Your task to perform on an android device: change text size in settings app Image 0: 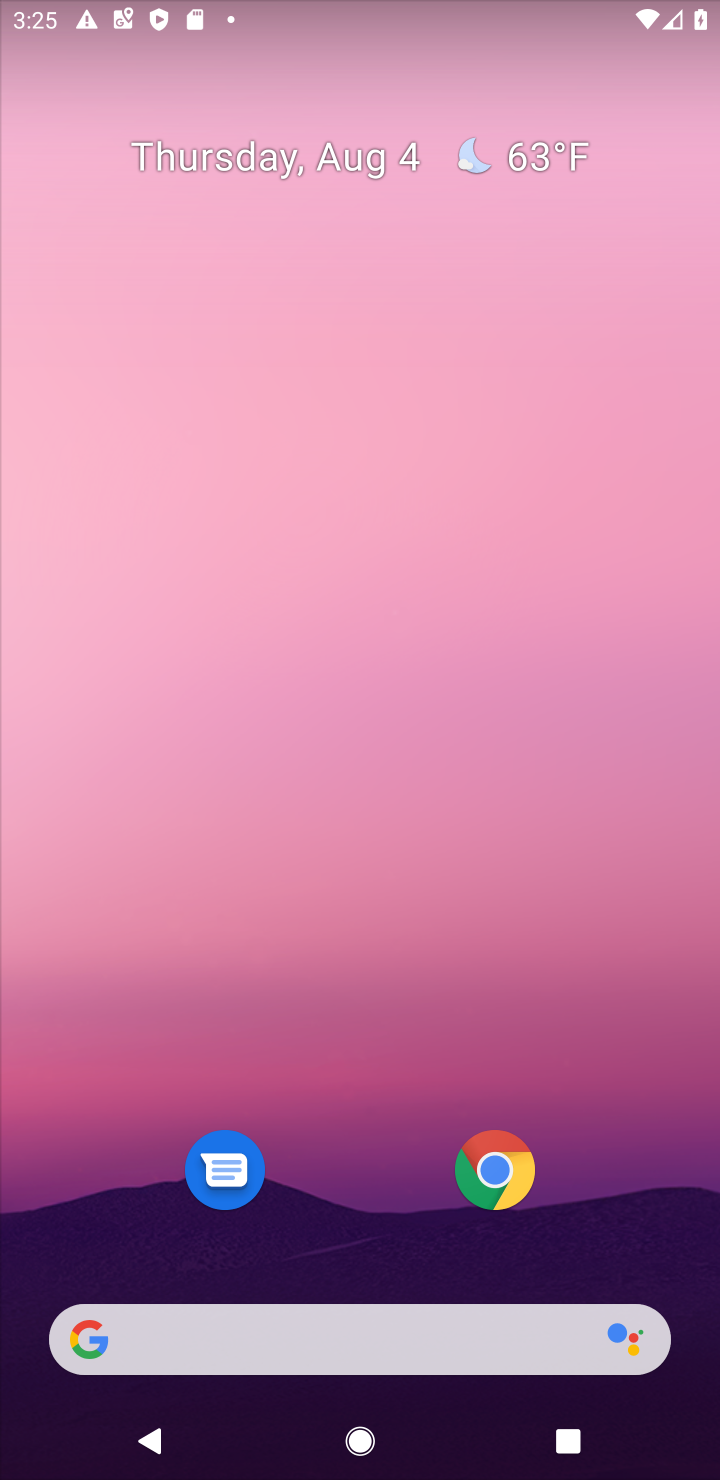
Step 0: drag from (657, 1205) to (544, 122)
Your task to perform on an android device: change text size in settings app Image 1: 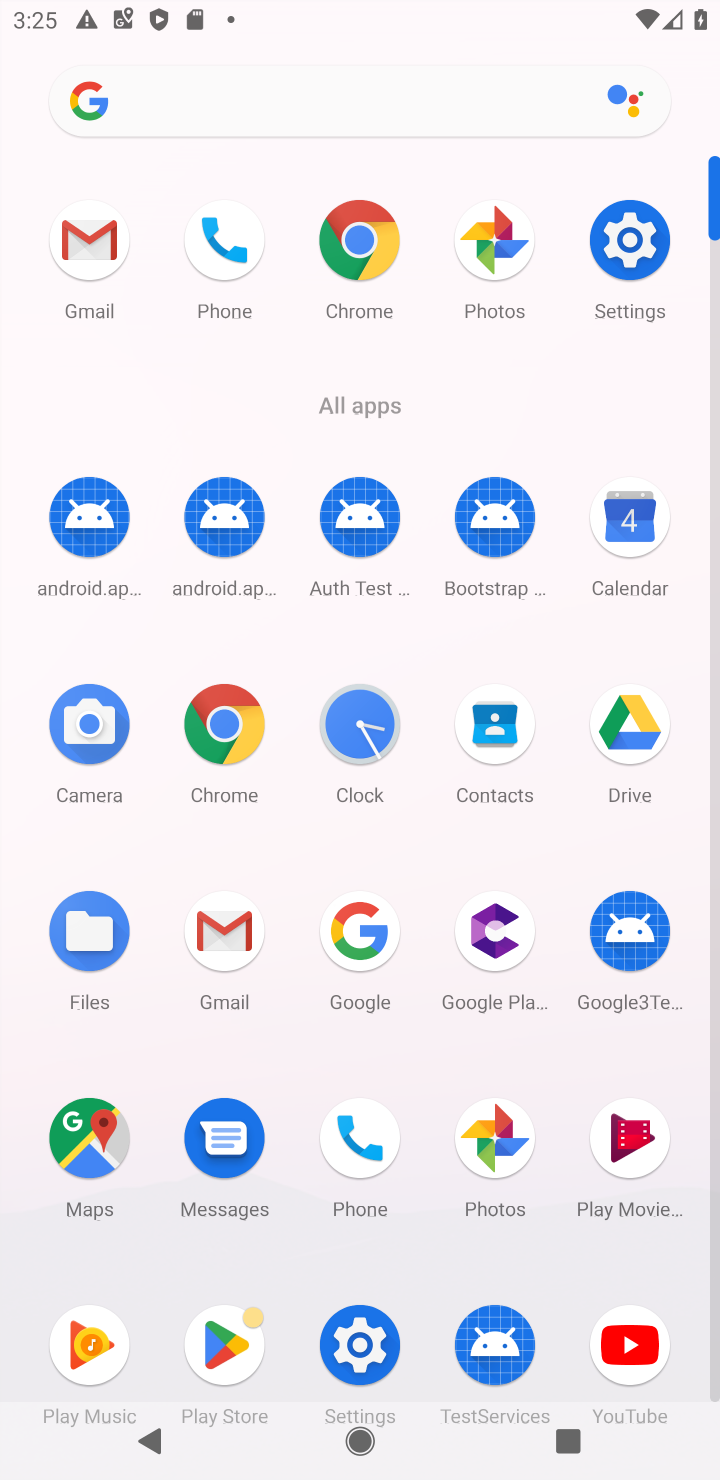
Step 1: click (358, 1350)
Your task to perform on an android device: change text size in settings app Image 2: 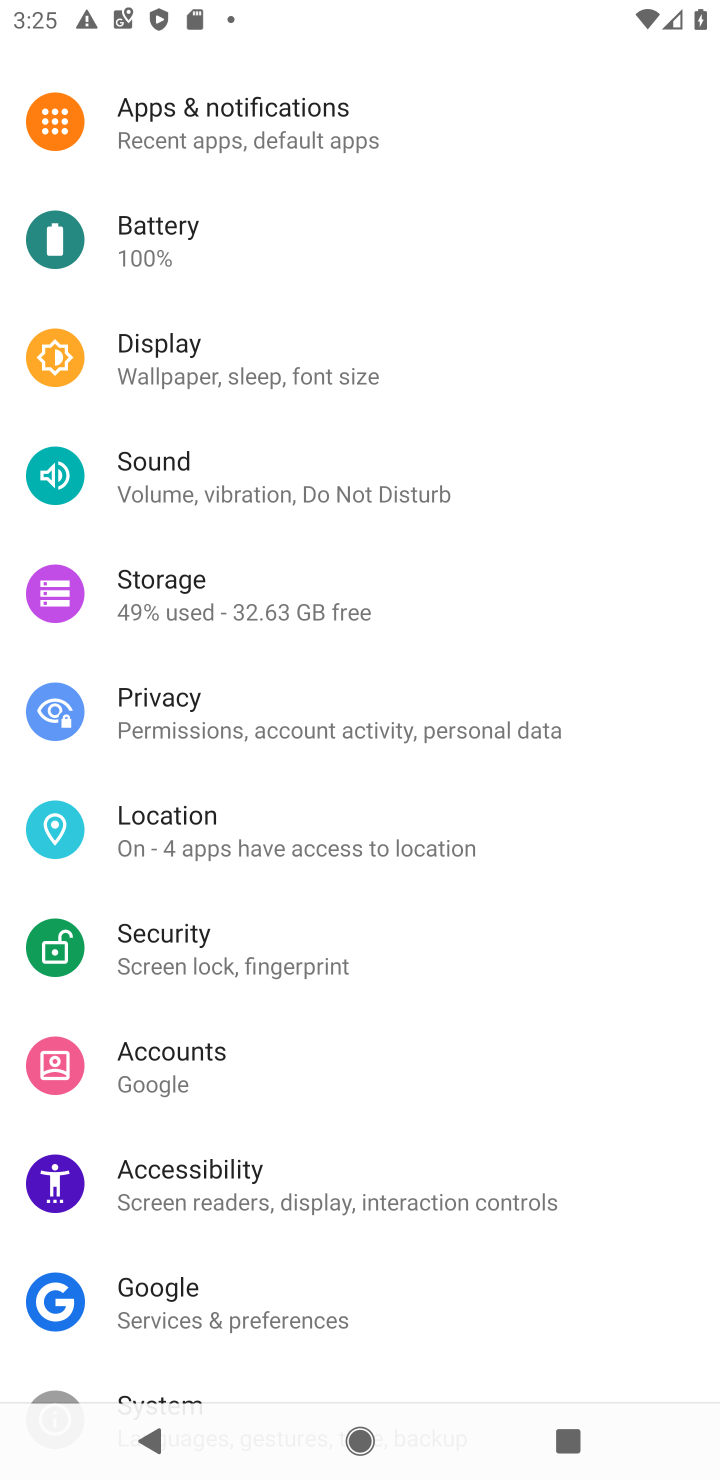
Step 2: click (168, 351)
Your task to perform on an android device: change text size in settings app Image 3: 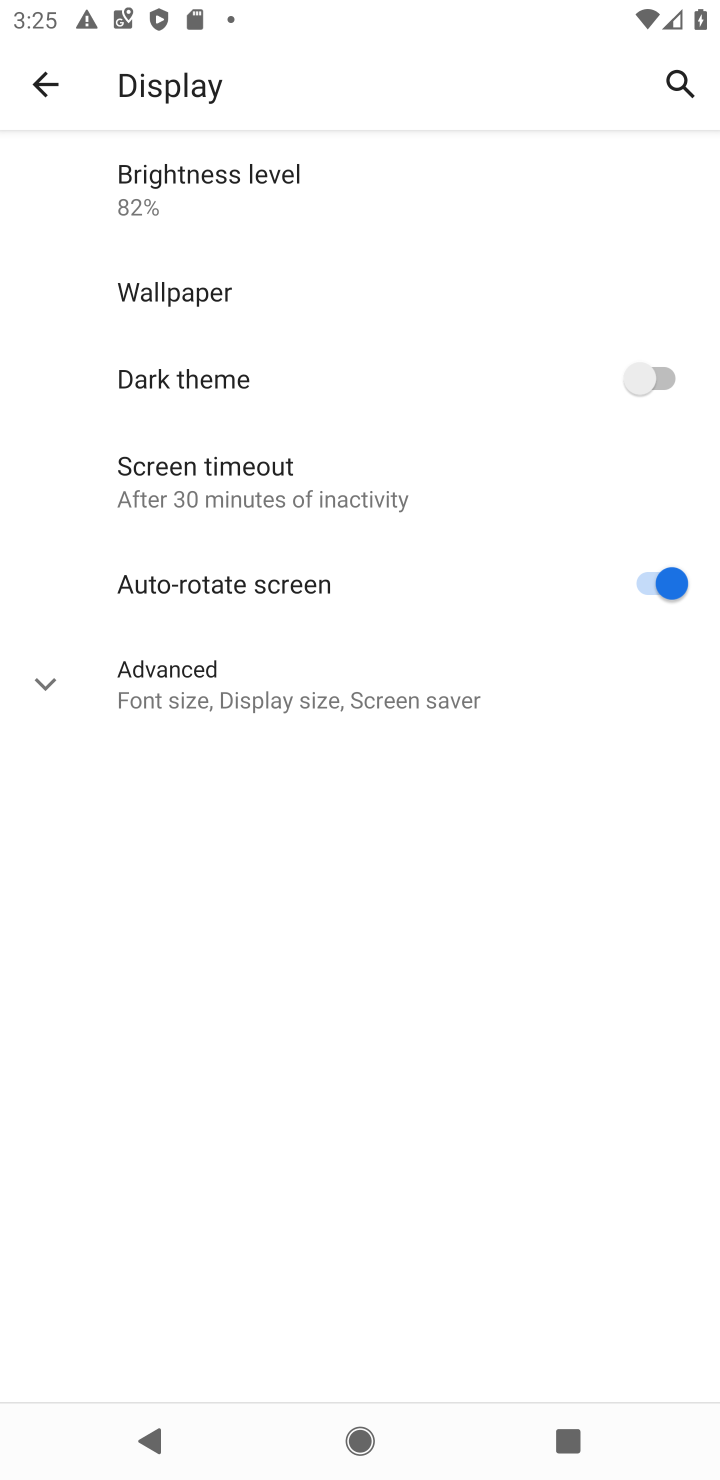
Step 3: click (49, 677)
Your task to perform on an android device: change text size in settings app Image 4: 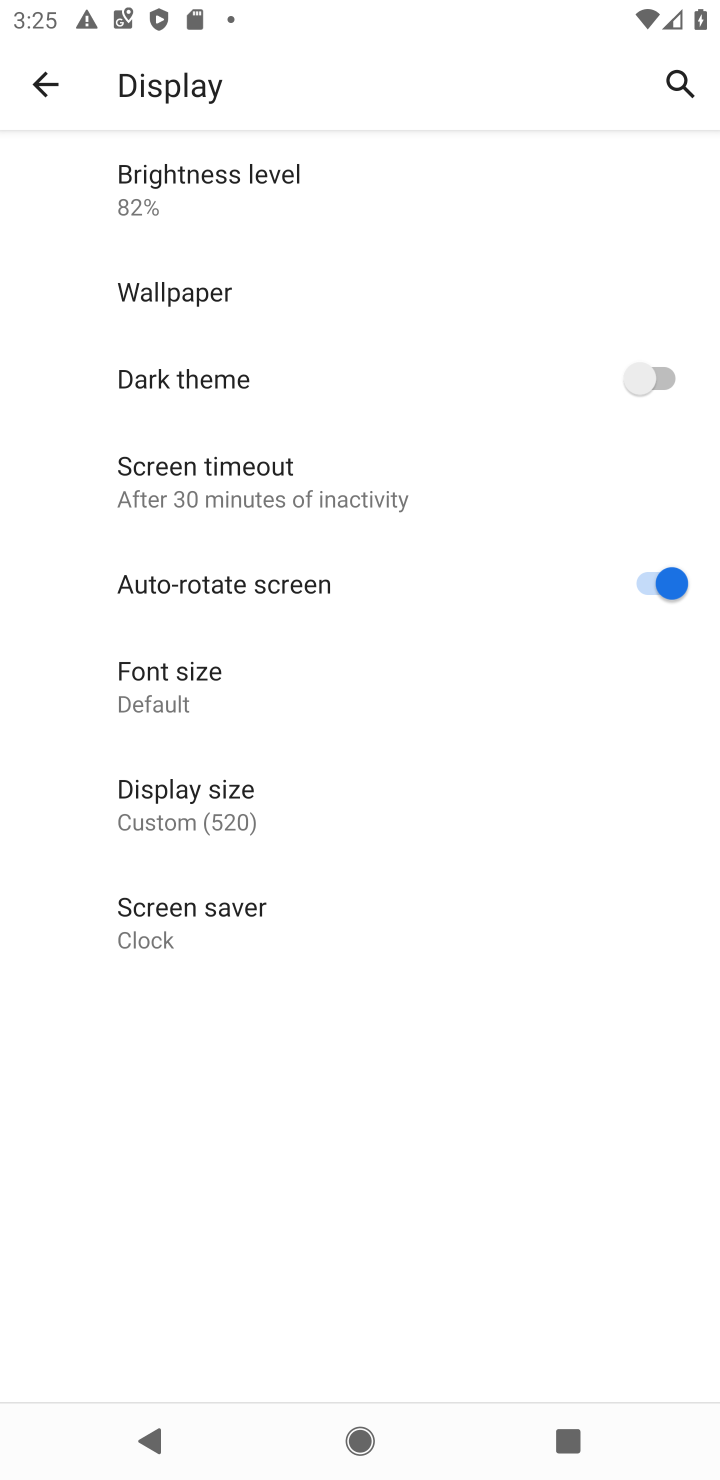
Step 4: click (144, 665)
Your task to perform on an android device: change text size in settings app Image 5: 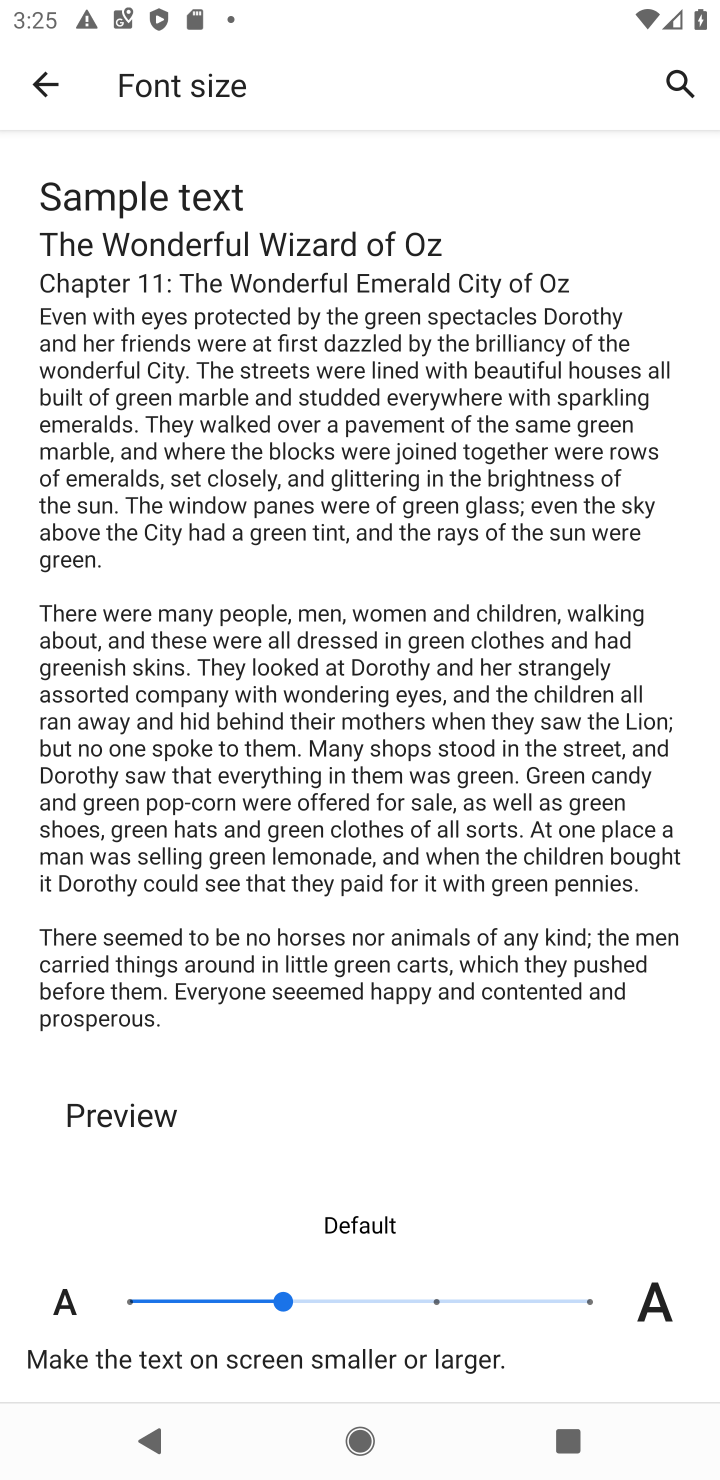
Step 5: click (577, 1302)
Your task to perform on an android device: change text size in settings app Image 6: 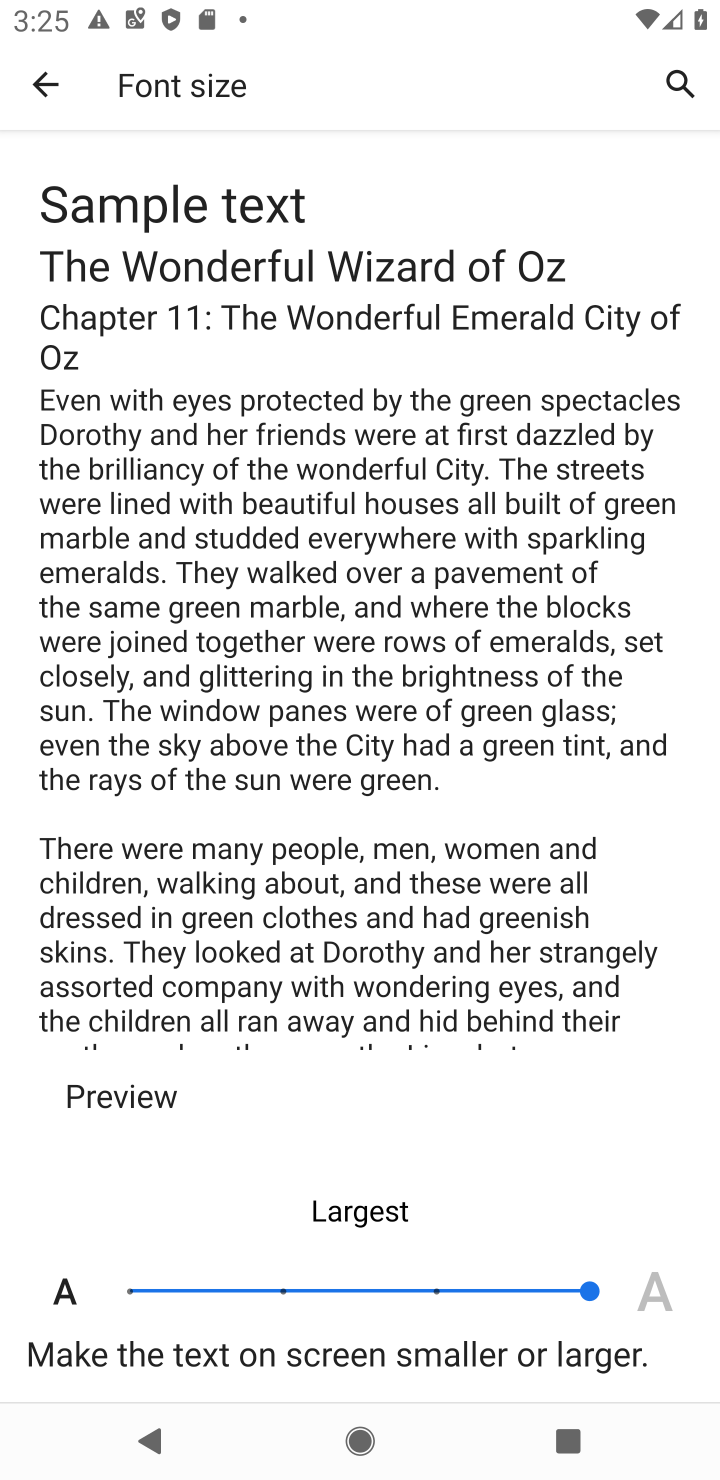
Step 6: task complete